Your task to perform on an android device: Open Google Chrome and open the bookmarks view Image 0: 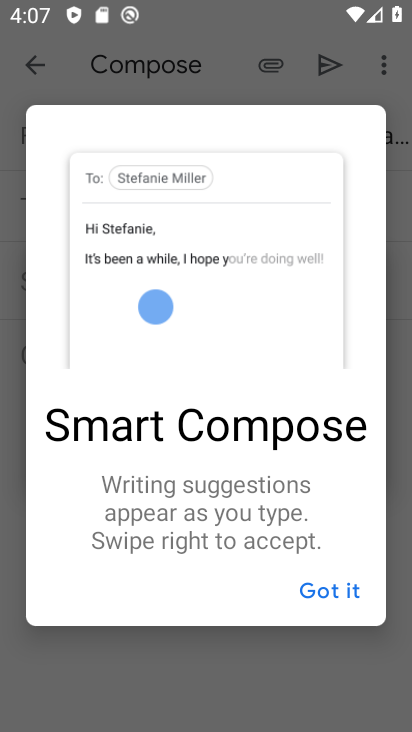
Step 0: press back button
Your task to perform on an android device: Open Google Chrome and open the bookmarks view Image 1: 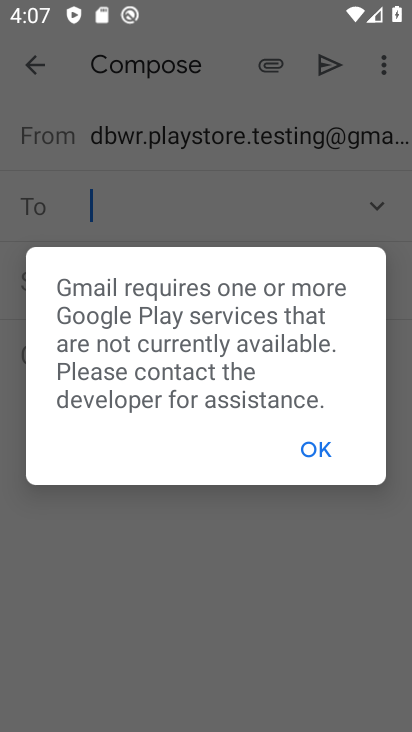
Step 1: press home button
Your task to perform on an android device: Open Google Chrome and open the bookmarks view Image 2: 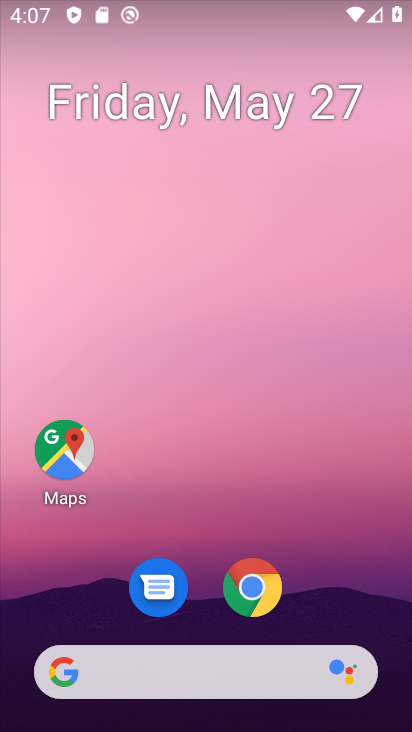
Step 2: drag from (327, 555) to (210, 92)
Your task to perform on an android device: Open Google Chrome and open the bookmarks view Image 3: 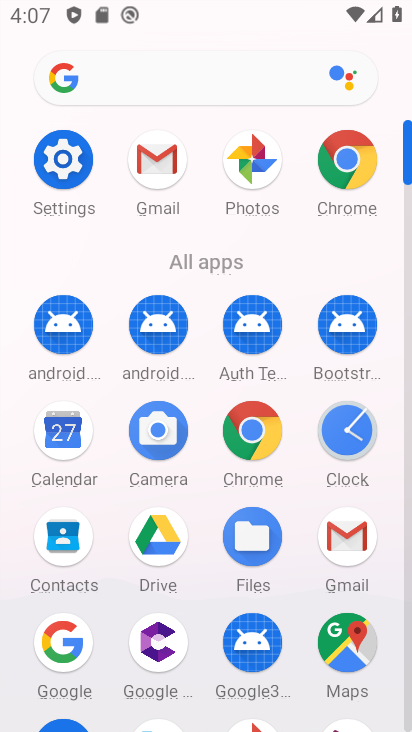
Step 3: click (346, 161)
Your task to perform on an android device: Open Google Chrome and open the bookmarks view Image 4: 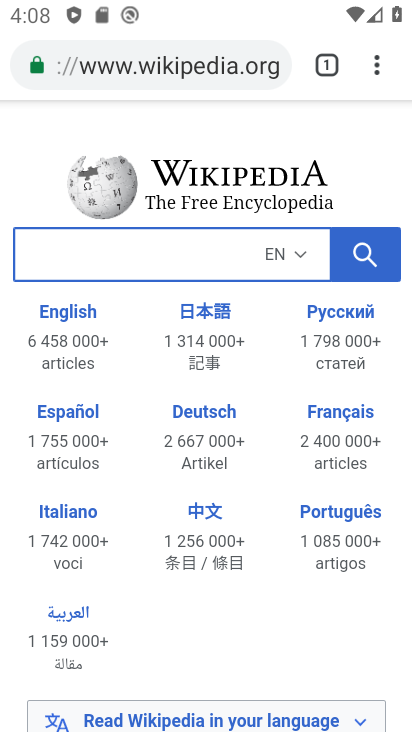
Step 4: task complete